Your task to perform on an android device: Go to Wikipedia Image 0: 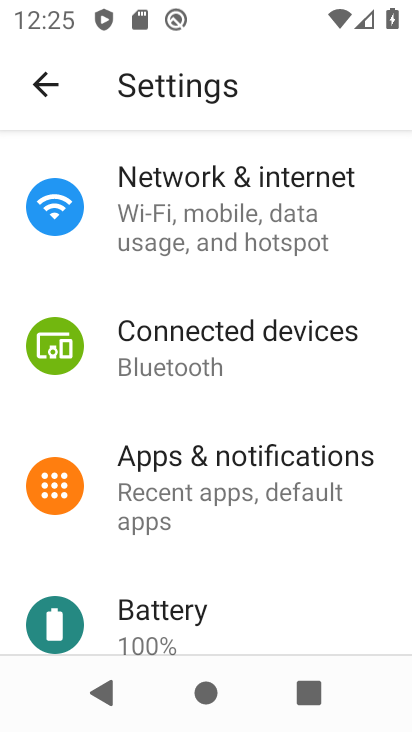
Step 0: press home button
Your task to perform on an android device: Go to Wikipedia Image 1: 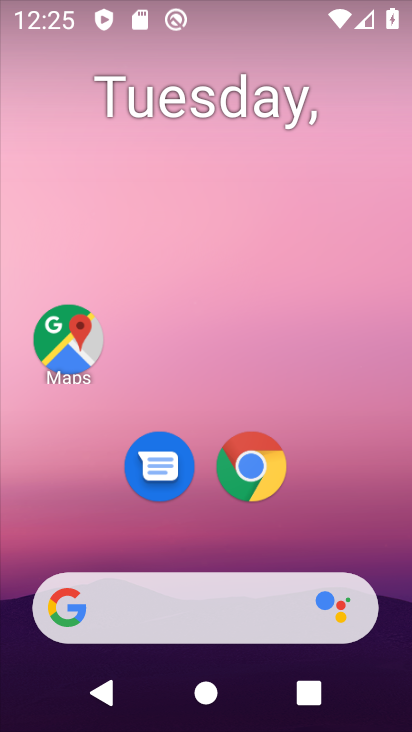
Step 1: drag from (375, 535) to (373, 226)
Your task to perform on an android device: Go to Wikipedia Image 2: 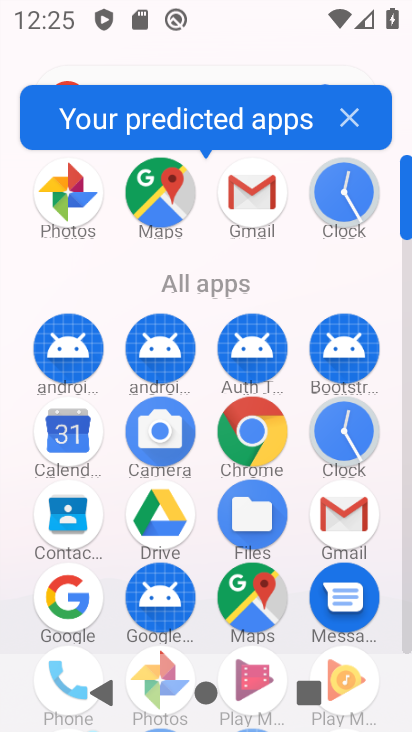
Step 2: click (264, 435)
Your task to perform on an android device: Go to Wikipedia Image 3: 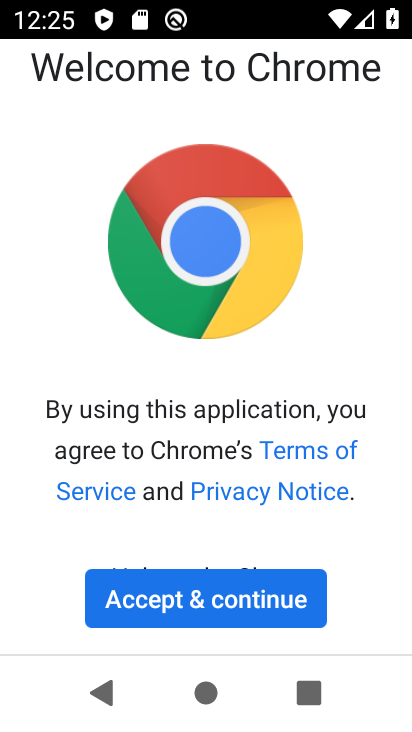
Step 3: click (292, 603)
Your task to perform on an android device: Go to Wikipedia Image 4: 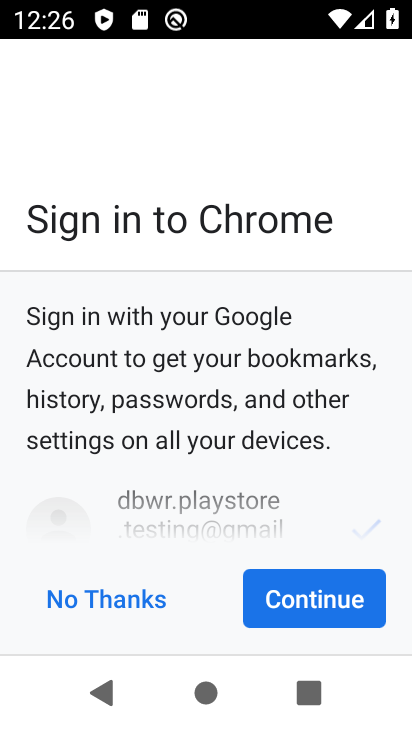
Step 4: click (293, 604)
Your task to perform on an android device: Go to Wikipedia Image 5: 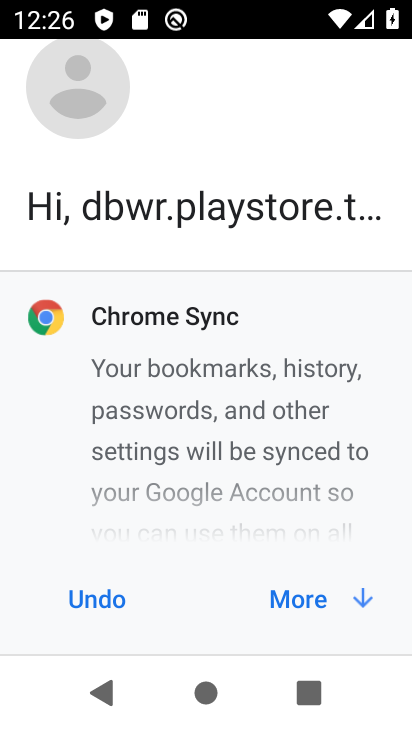
Step 5: click (293, 604)
Your task to perform on an android device: Go to Wikipedia Image 6: 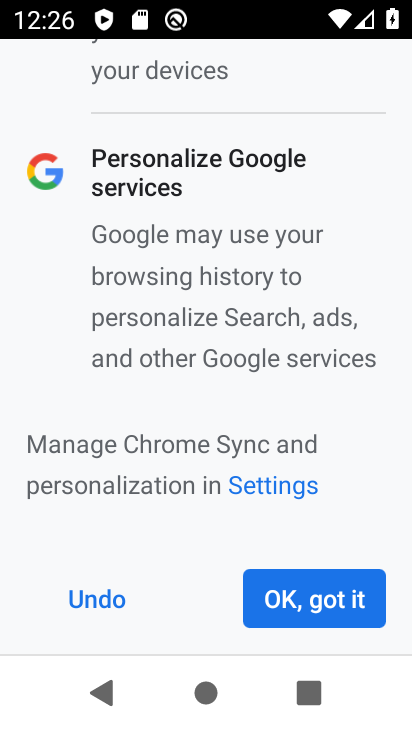
Step 6: click (293, 604)
Your task to perform on an android device: Go to Wikipedia Image 7: 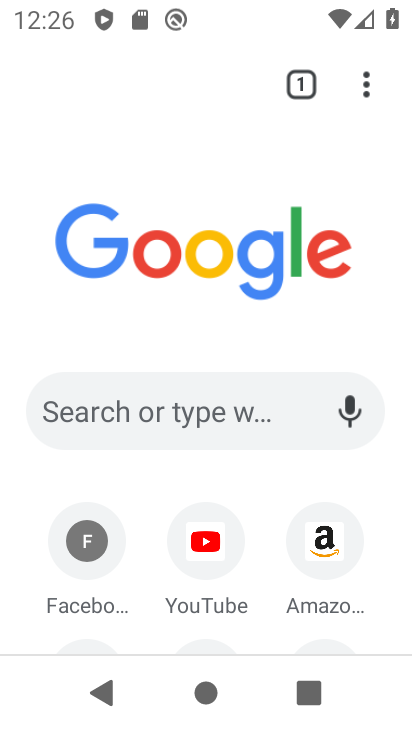
Step 7: click (259, 419)
Your task to perform on an android device: Go to Wikipedia Image 8: 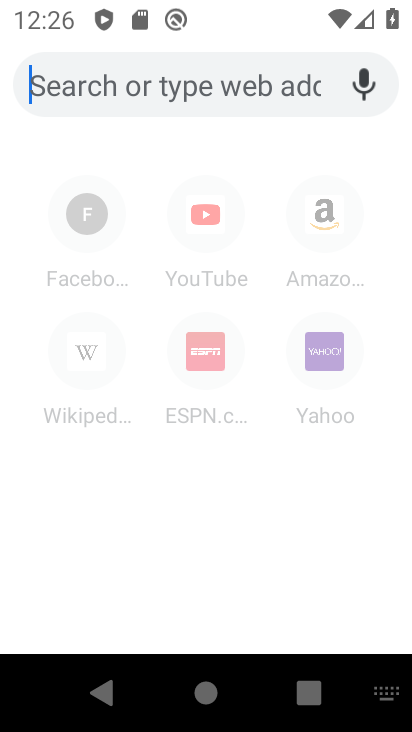
Step 8: type "wikipedia"
Your task to perform on an android device: Go to Wikipedia Image 9: 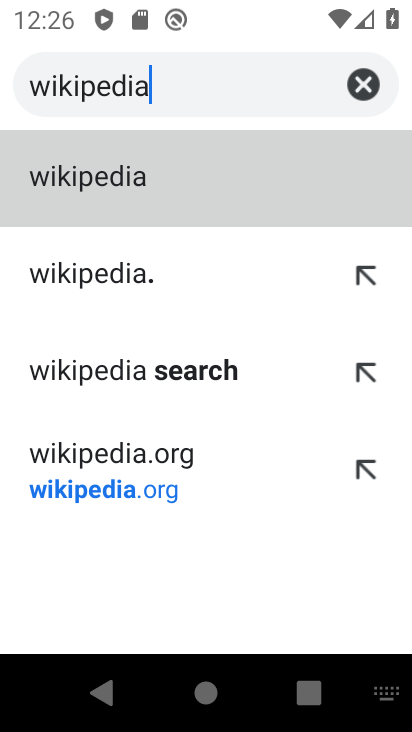
Step 9: click (299, 187)
Your task to perform on an android device: Go to Wikipedia Image 10: 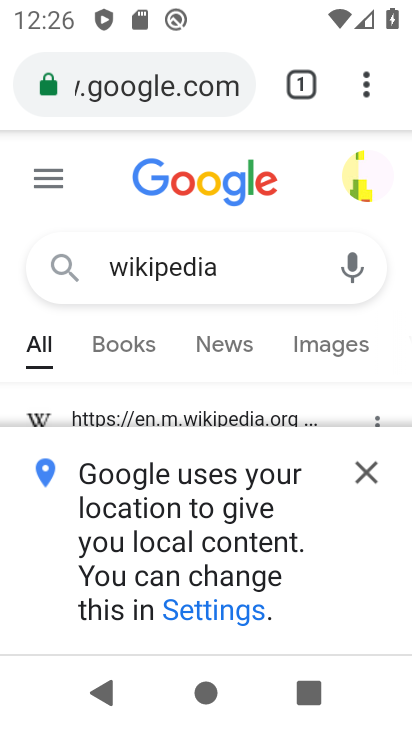
Step 10: task complete